Your task to perform on an android device: Go to Maps Image 0: 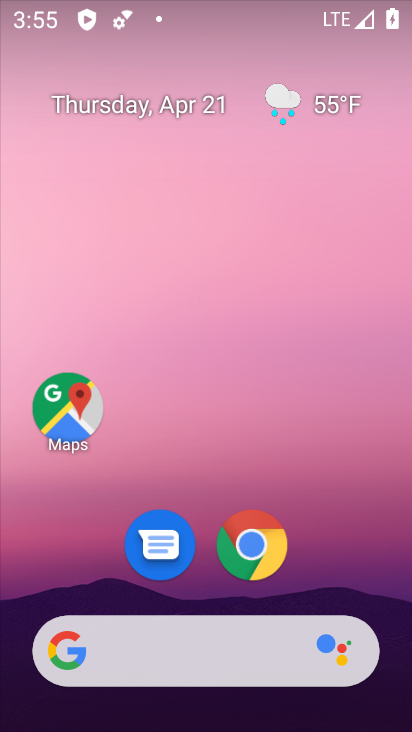
Step 0: drag from (231, 654) to (181, 155)
Your task to perform on an android device: Go to Maps Image 1: 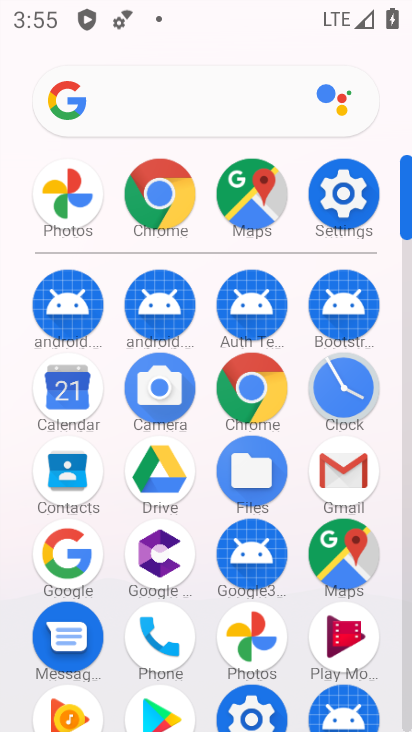
Step 1: click (251, 223)
Your task to perform on an android device: Go to Maps Image 2: 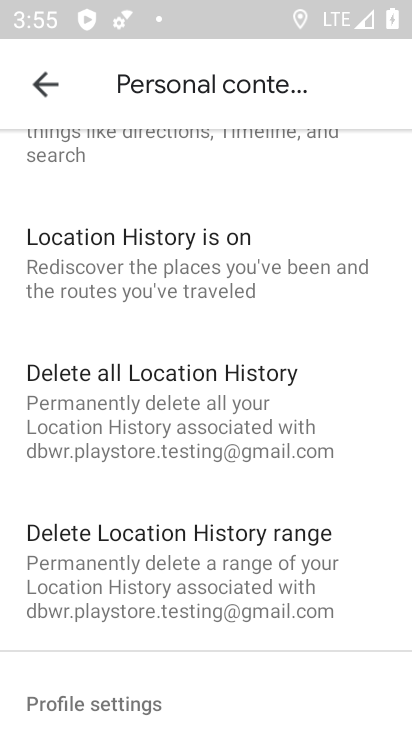
Step 2: task complete